Your task to perform on an android device: Do I have any events today? Image 0: 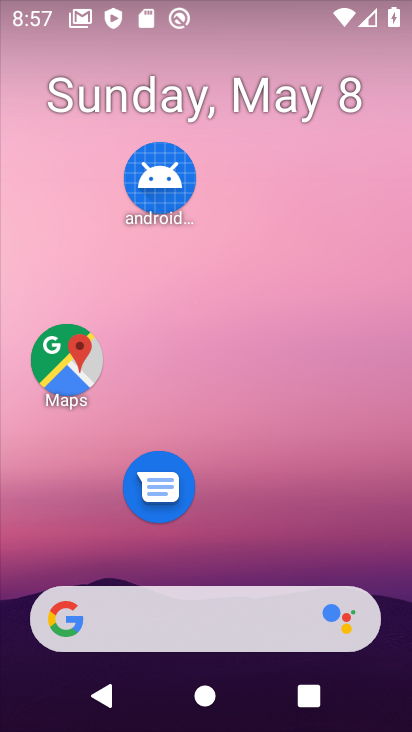
Step 0: drag from (265, 495) to (284, 85)
Your task to perform on an android device: Do I have any events today? Image 1: 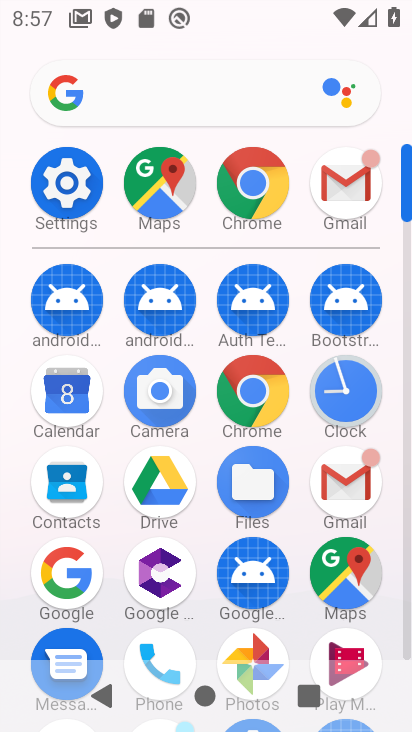
Step 1: click (76, 425)
Your task to perform on an android device: Do I have any events today? Image 2: 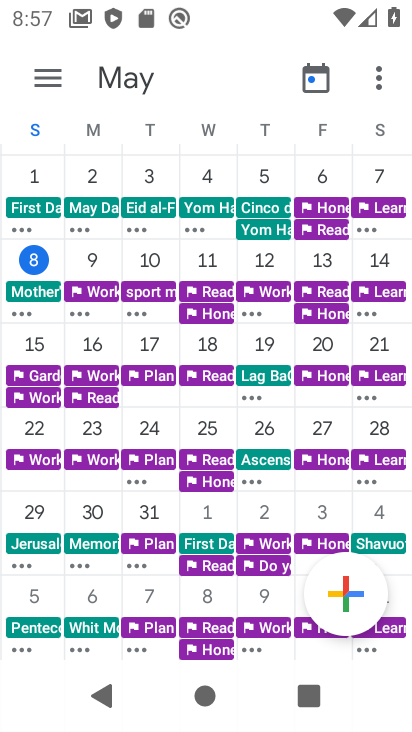
Step 2: click (43, 76)
Your task to perform on an android device: Do I have any events today? Image 3: 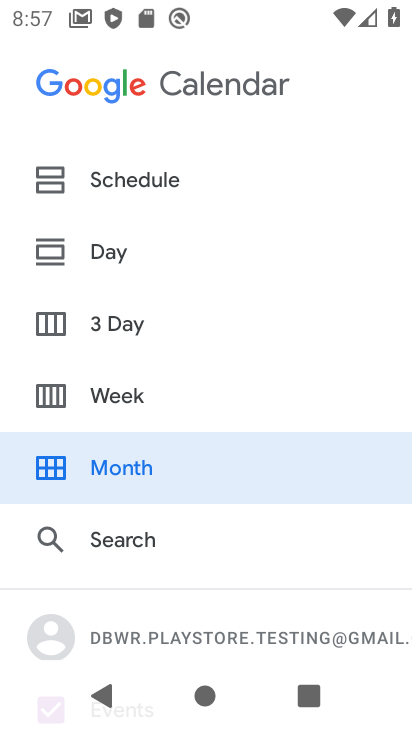
Step 3: task complete